Your task to perform on an android device: turn pop-ups off in chrome Image 0: 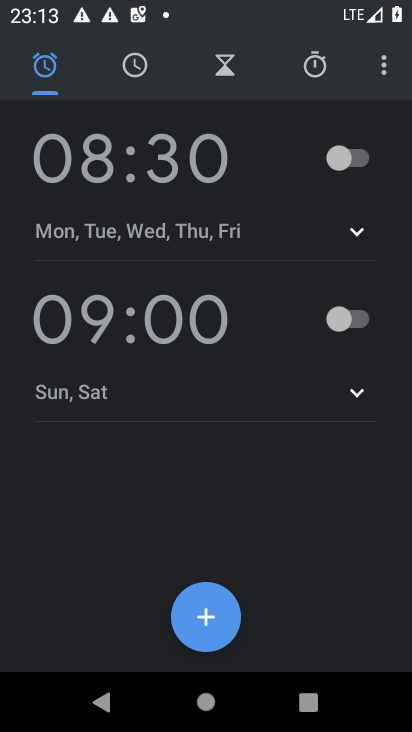
Step 0: press home button
Your task to perform on an android device: turn pop-ups off in chrome Image 1: 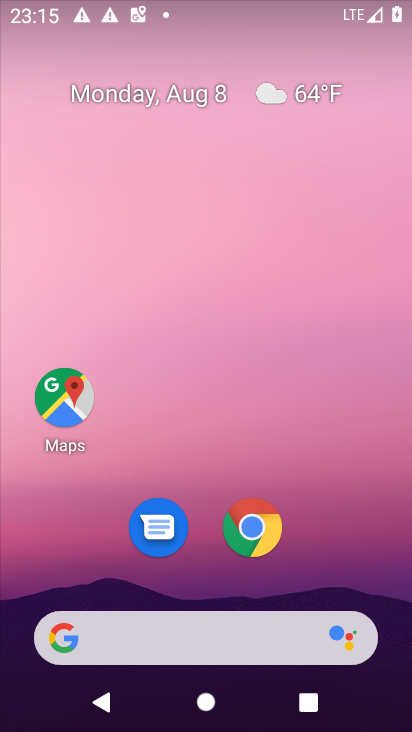
Step 1: click (255, 534)
Your task to perform on an android device: turn pop-ups off in chrome Image 2: 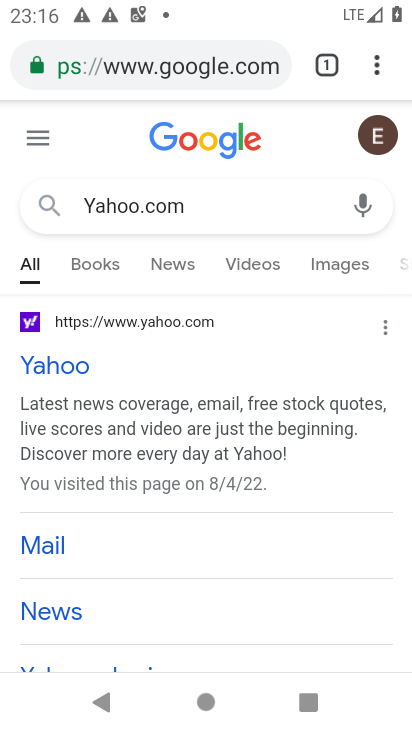
Step 2: click (253, 63)
Your task to perform on an android device: turn pop-ups off in chrome Image 3: 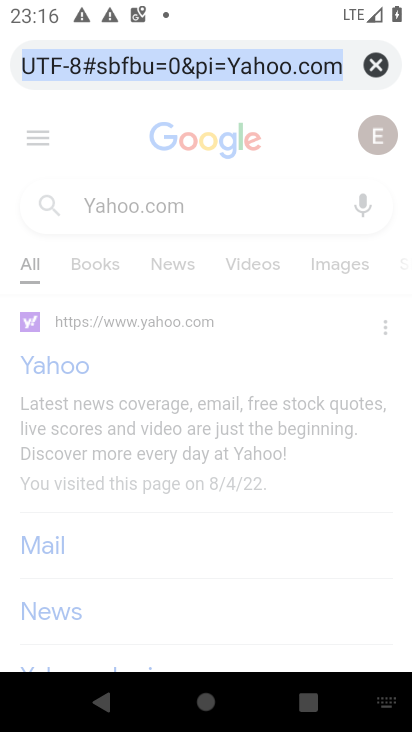
Step 3: click (372, 62)
Your task to perform on an android device: turn pop-ups off in chrome Image 4: 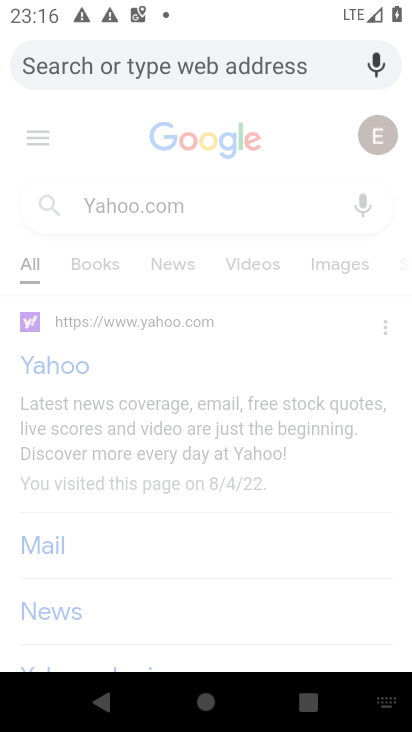
Step 4: press back button
Your task to perform on an android device: turn pop-ups off in chrome Image 5: 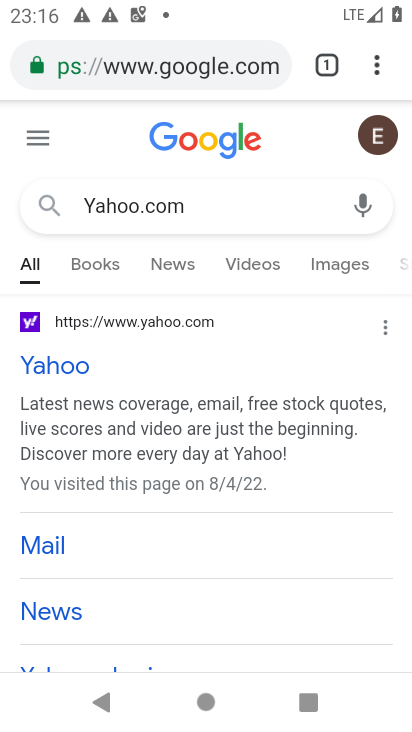
Step 5: click (373, 61)
Your task to perform on an android device: turn pop-ups off in chrome Image 6: 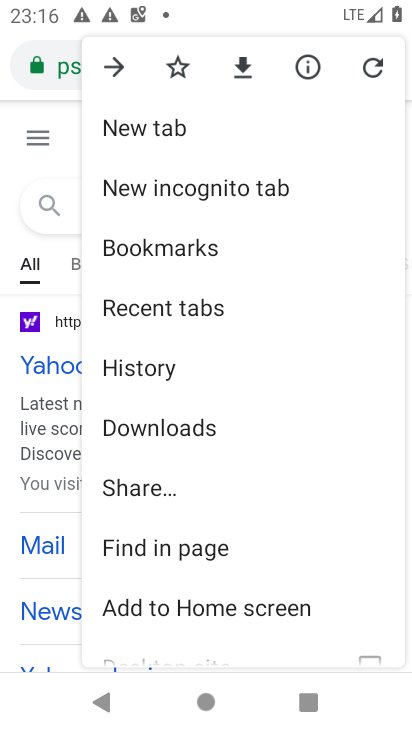
Step 6: drag from (322, 576) to (326, 223)
Your task to perform on an android device: turn pop-ups off in chrome Image 7: 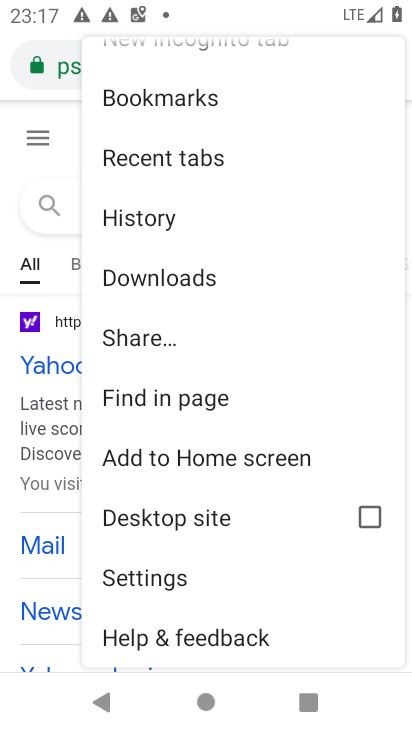
Step 7: click (158, 576)
Your task to perform on an android device: turn pop-ups off in chrome Image 8: 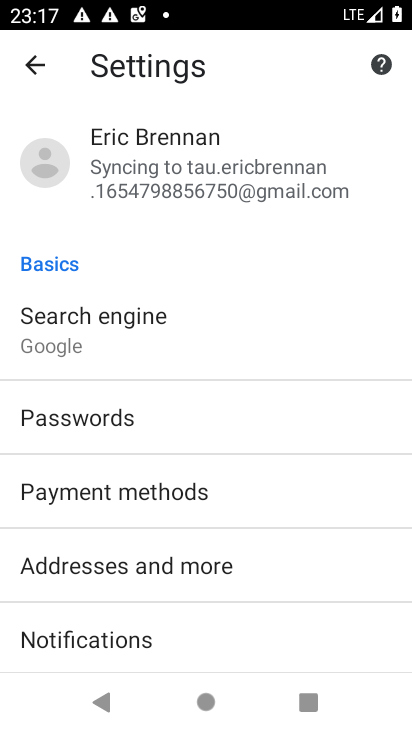
Step 8: drag from (332, 624) to (334, 225)
Your task to perform on an android device: turn pop-ups off in chrome Image 9: 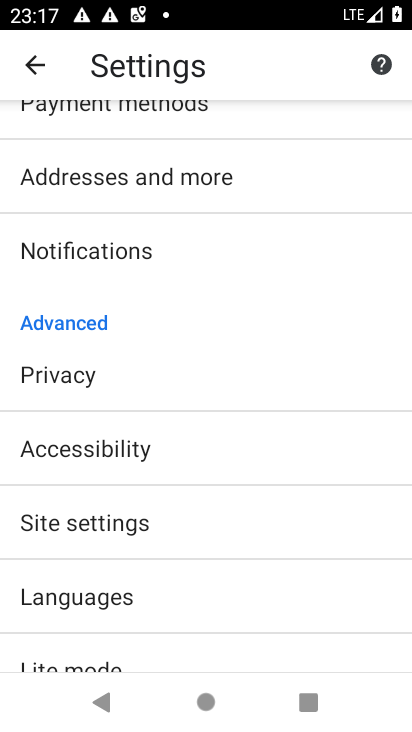
Step 9: drag from (283, 622) to (266, 370)
Your task to perform on an android device: turn pop-ups off in chrome Image 10: 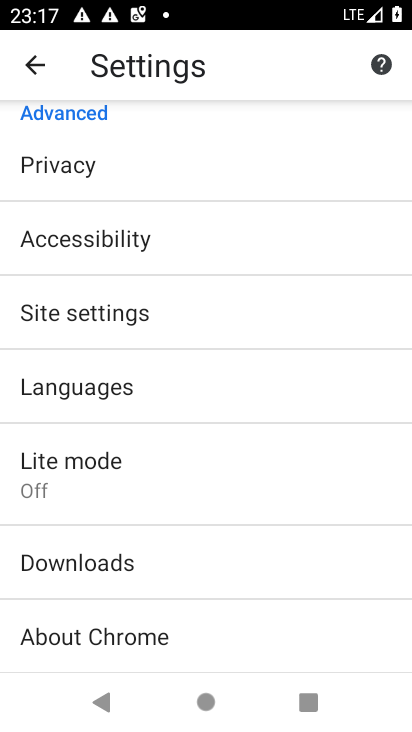
Step 10: click (90, 313)
Your task to perform on an android device: turn pop-ups off in chrome Image 11: 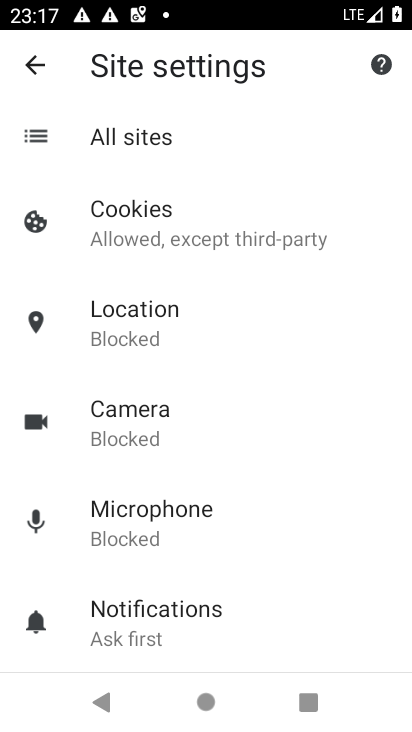
Step 11: drag from (266, 591) to (275, 323)
Your task to perform on an android device: turn pop-ups off in chrome Image 12: 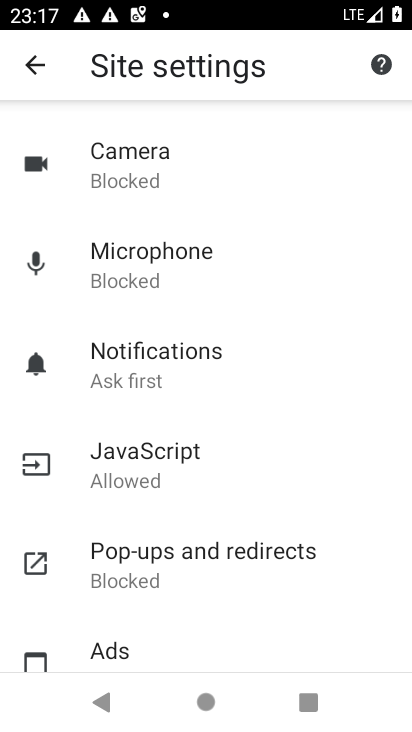
Step 12: click (161, 554)
Your task to perform on an android device: turn pop-ups off in chrome Image 13: 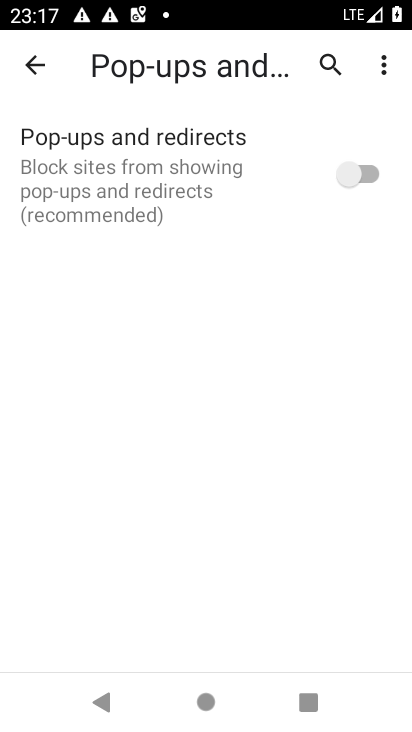
Step 13: task complete